Your task to perform on an android device: turn notification dots on Image 0: 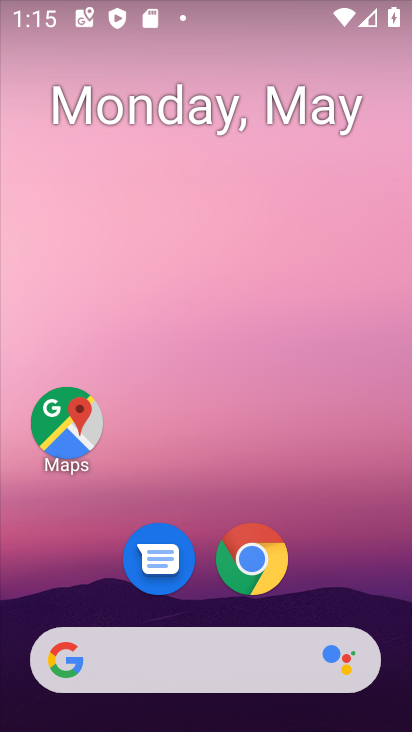
Step 0: drag from (183, 717) to (215, 240)
Your task to perform on an android device: turn notification dots on Image 1: 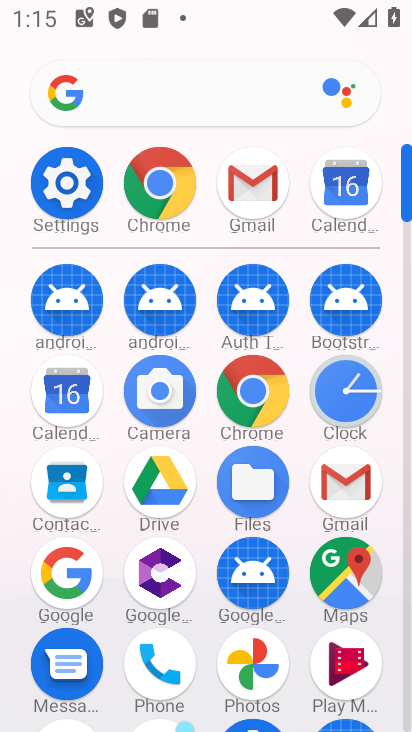
Step 1: click (72, 201)
Your task to perform on an android device: turn notification dots on Image 2: 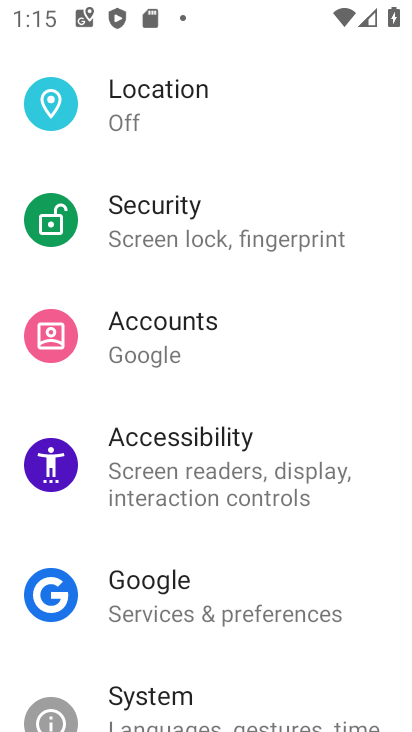
Step 2: drag from (185, 131) to (170, 669)
Your task to perform on an android device: turn notification dots on Image 3: 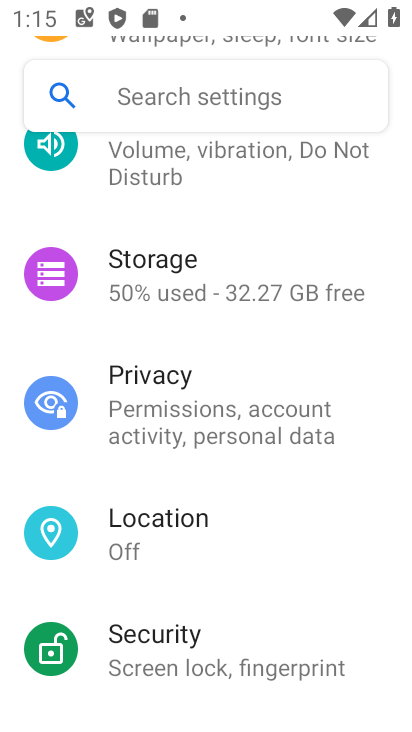
Step 3: drag from (295, 223) to (224, 714)
Your task to perform on an android device: turn notification dots on Image 4: 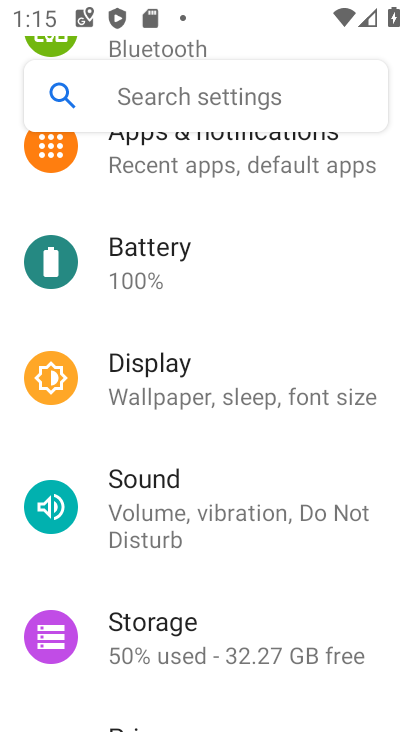
Step 4: drag from (341, 225) to (351, 595)
Your task to perform on an android device: turn notification dots on Image 5: 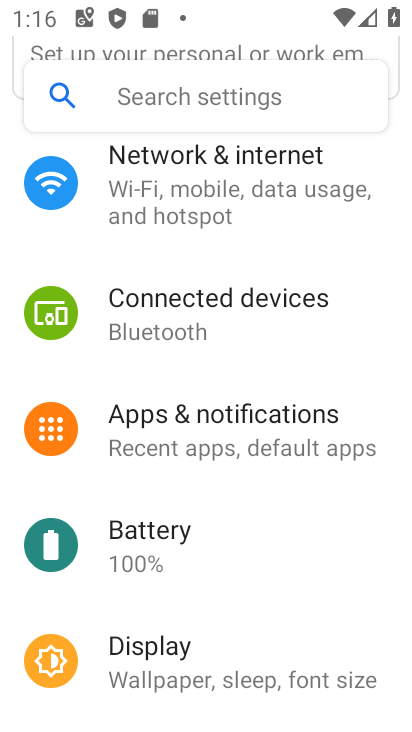
Step 5: click (284, 423)
Your task to perform on an android device: turn notification dots on Image 6: 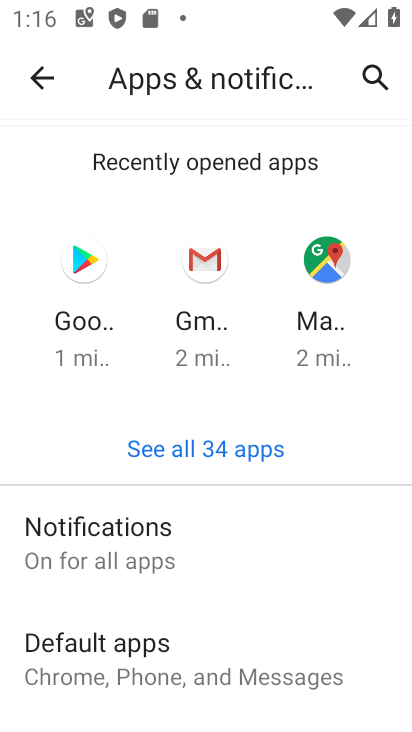
Step 6: click (203, 521)
Your task to perform on an android device: turn notification dots on Image 7: 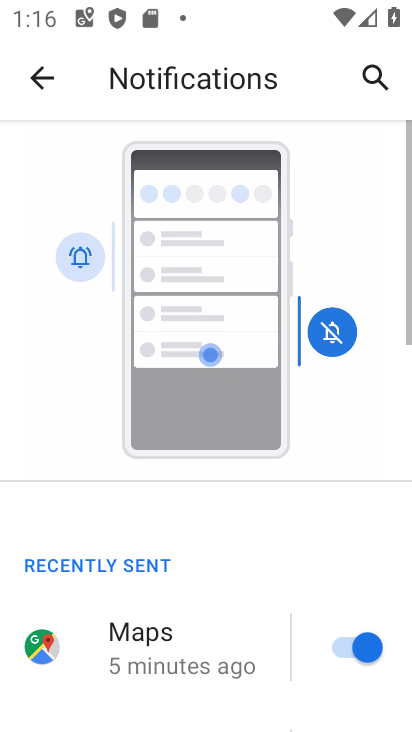
Step 7: drag from (241, 660) to (247, 28)
Your task to perform on an android device: turn notification dots on Image 8: 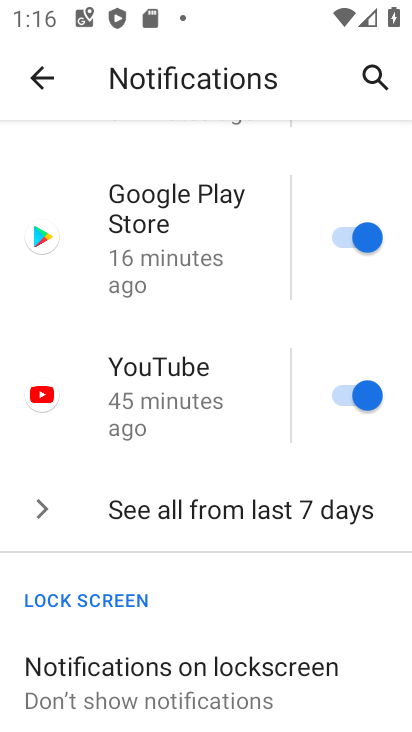
Step 8: drag from (218, 691) to (309, 183)
Your task to perform on an android device: turn notification dots on Image 9: 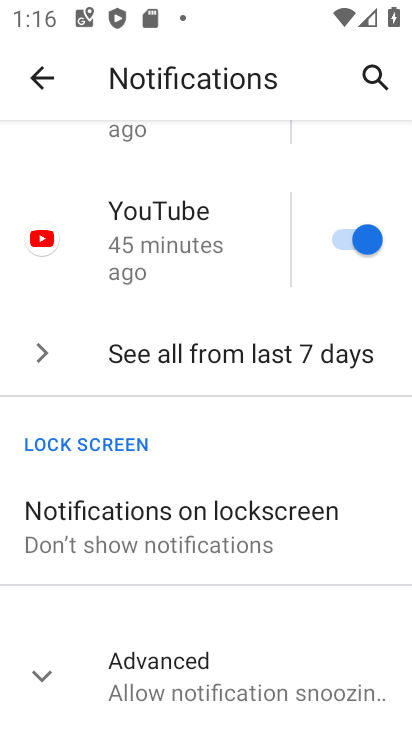
Step 9: click (226, 675)
Your task to perform on an android device: turn notification dots on Image 10: 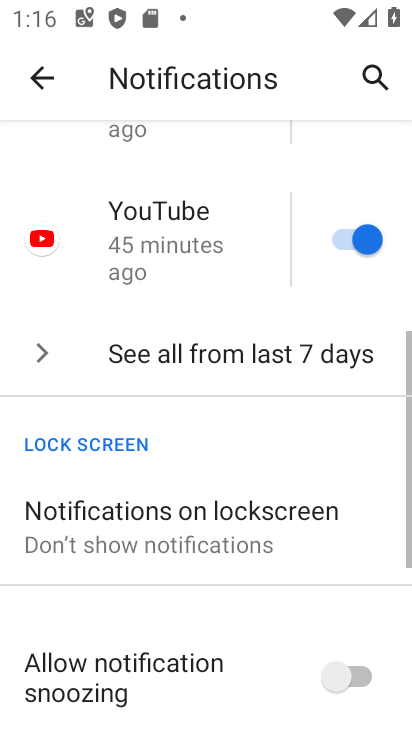
Step 10: task complete